Your task to perform on an android device: open a new tab in the chrome app Image 0: 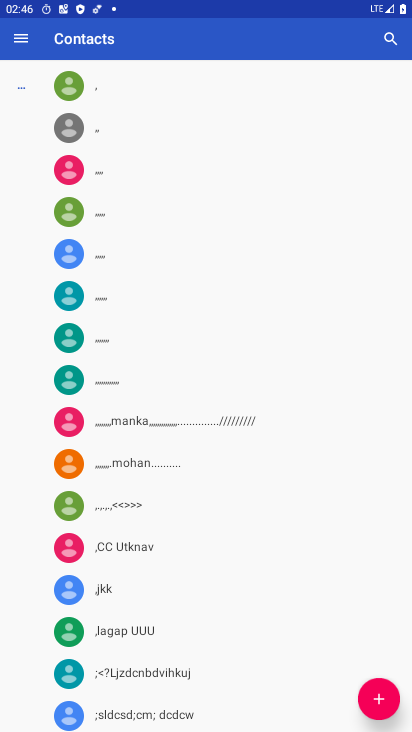
Step 0: press home button
Your task to perform on an android device: open a new tab in the chrome app Image 1: 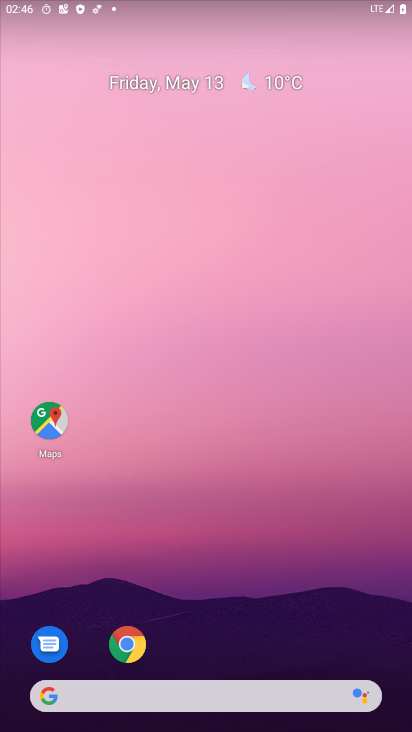
Step 1: drag from (239, 663) to (263, 11)
Your task to perform on an android device: open a new tab in the chrome app Image 2: 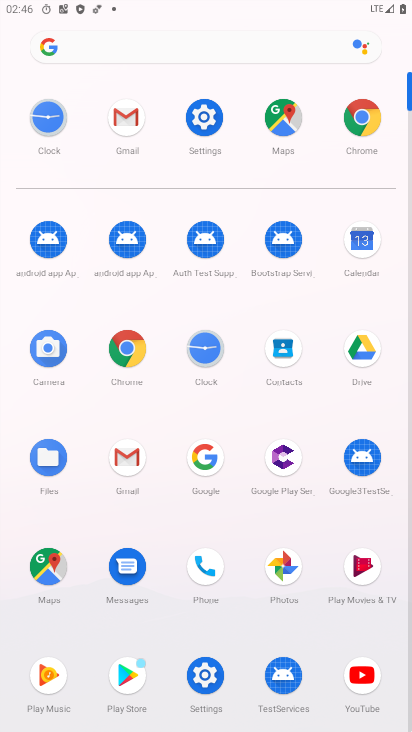
Step 2: click (131, 350)
Your task to perform on an android device: open a new tab in the chrome app Image 3: 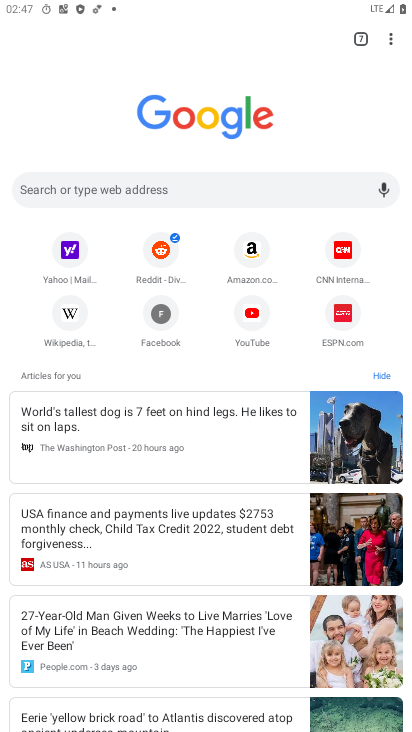
Step 3: click (387, 33)
Your task to perform on an android device: open a new tab in the chrome app Image 4: 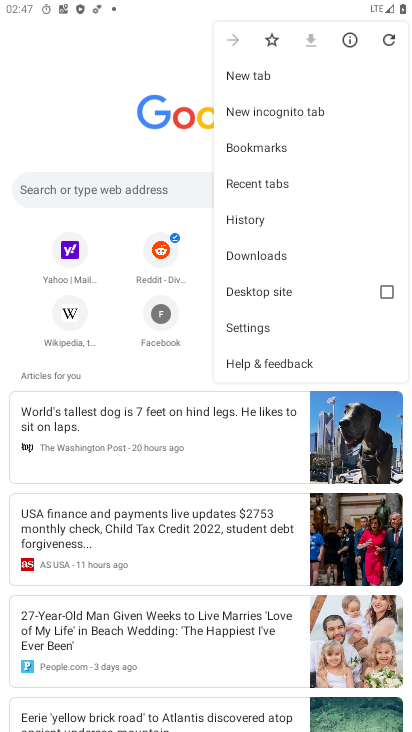
Step 4: click (280, 77)
Your task to perform on an android device: open a new tab in the chrome app Image 5: 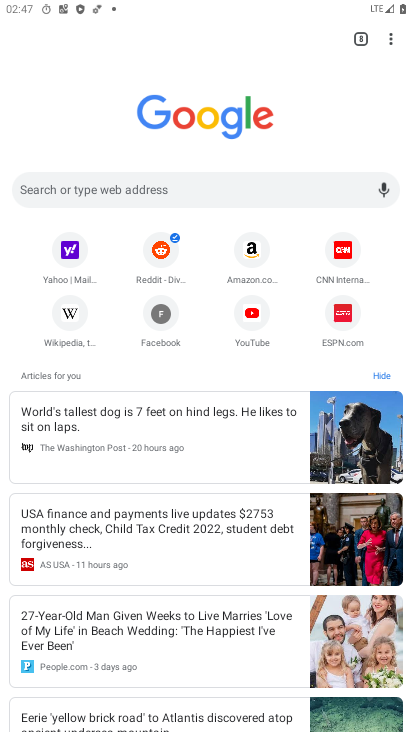
Step 5: task complete